Your task to perform on an android device: change notifications settings Image 0: 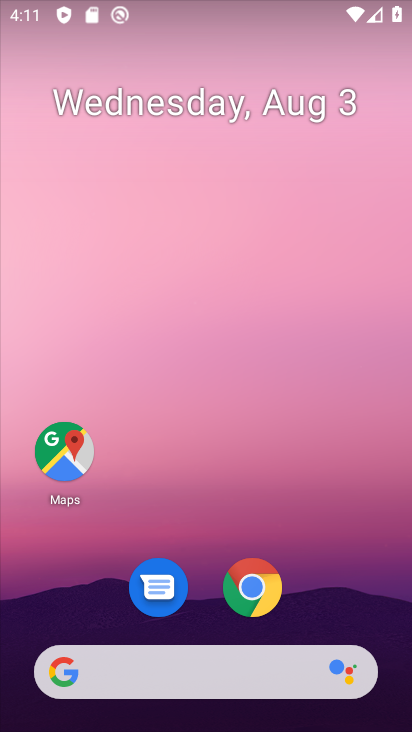
Step 0: drag from (12, 692) to (198, 121)
Your task to perform on an android device: change notifications settings Image 1: 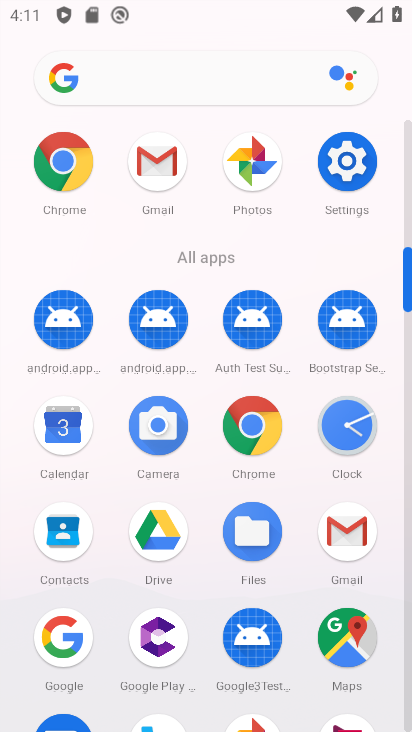
Step 1: drag from (188, 651) to (254, 349)
Your task to perform on an android device: change notifications settings Image 2: 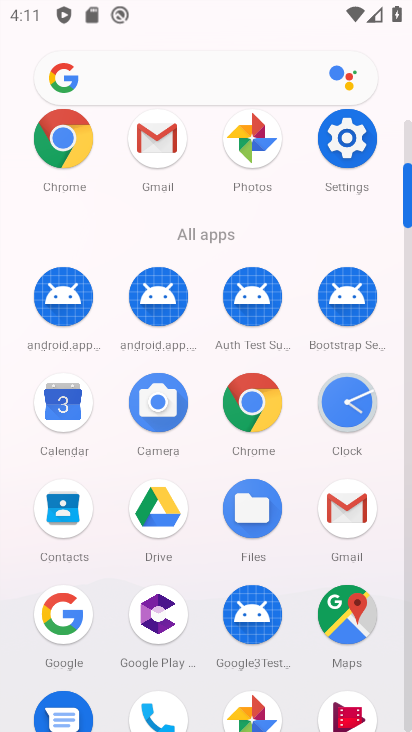
Step 2: click (349, 139)
Your task to perform on an android device: change notifications settings Image 3: 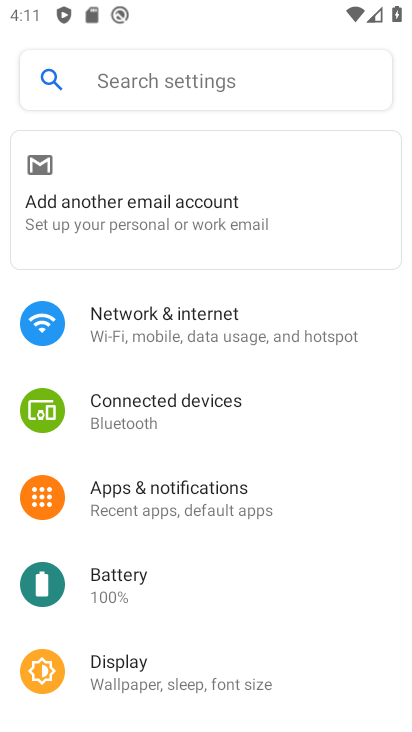
Step 3: click (162, 495)
Your task to perform on an android device: change notifications settings Image 4: 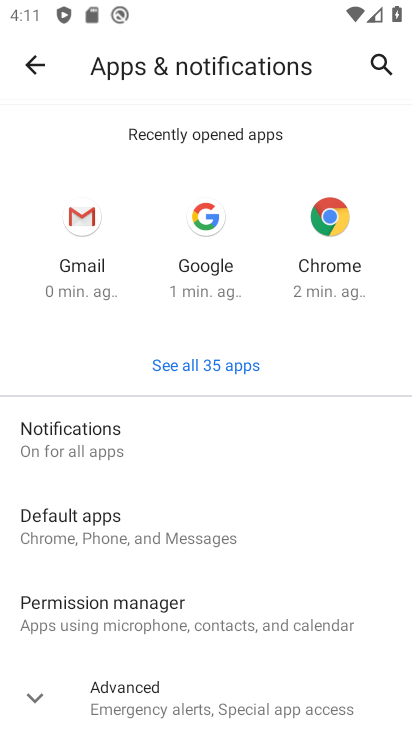
Step 4: task complete